Your task to perform on an android device: add a label to a message in the gmail app Image 0: 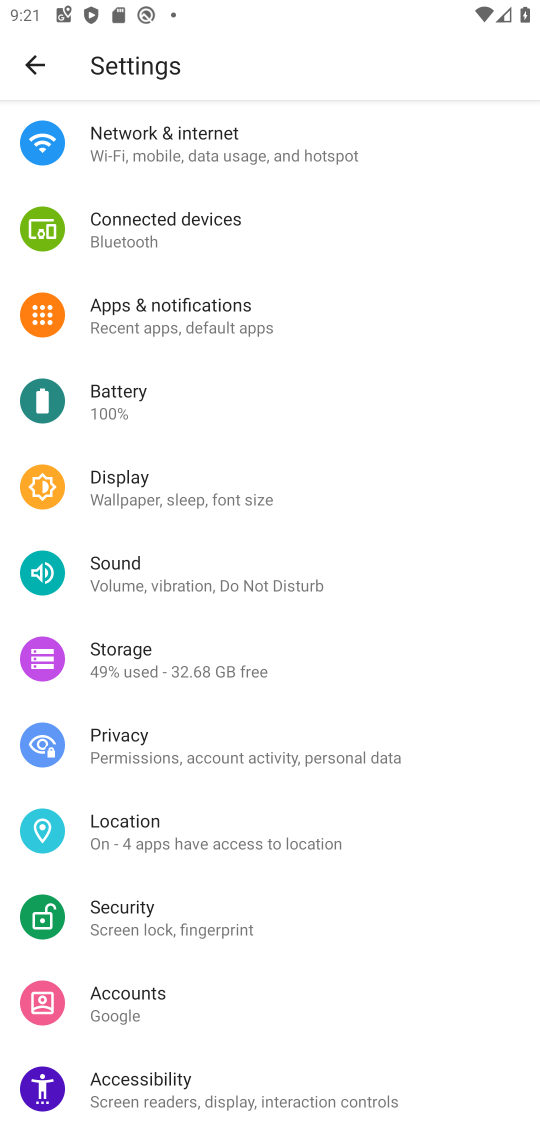
Step 0: press home button
Your task to perform on an android device: add a label to a message in the gmail app Image 1: 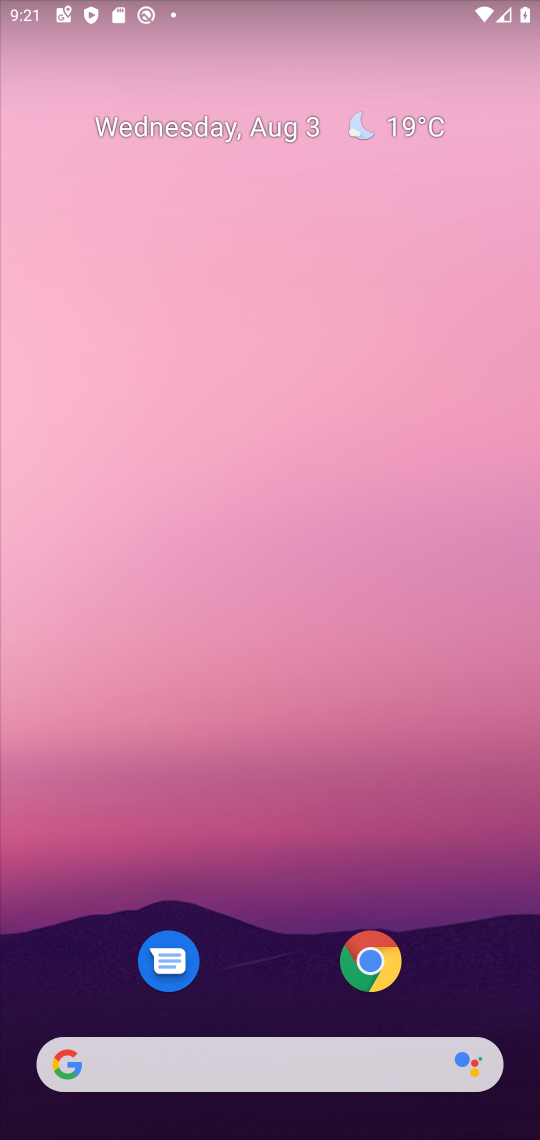
Step 1: drag from (304, 996) to (236, 0)
Your task to perform on an android device: add a label to a message in the gmail app Image 2: 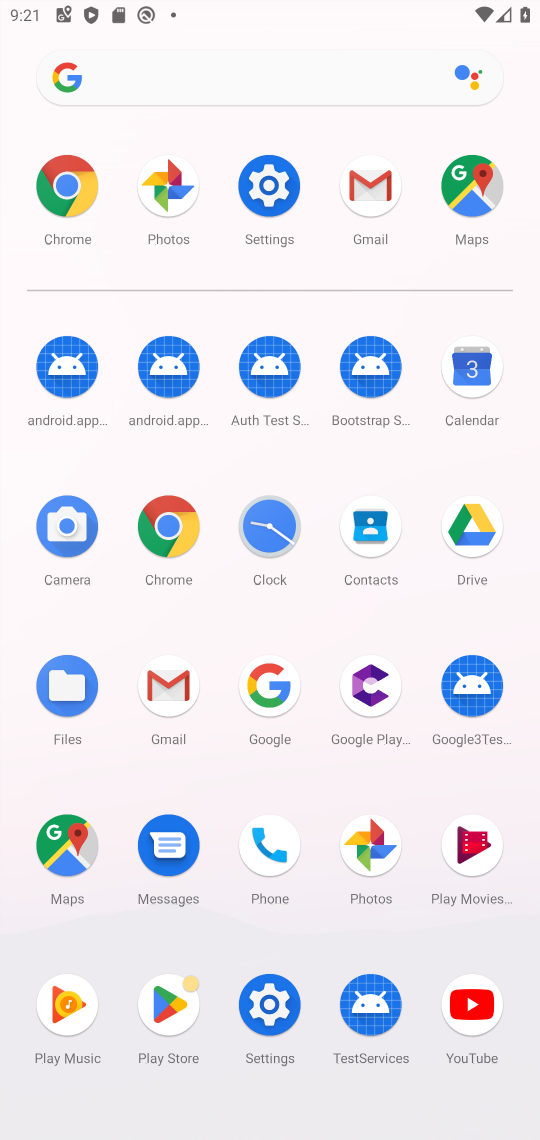
Step 2: click (176, 686)
Your task to perform on an android device: add a label to a message in the gmail app Image 3: 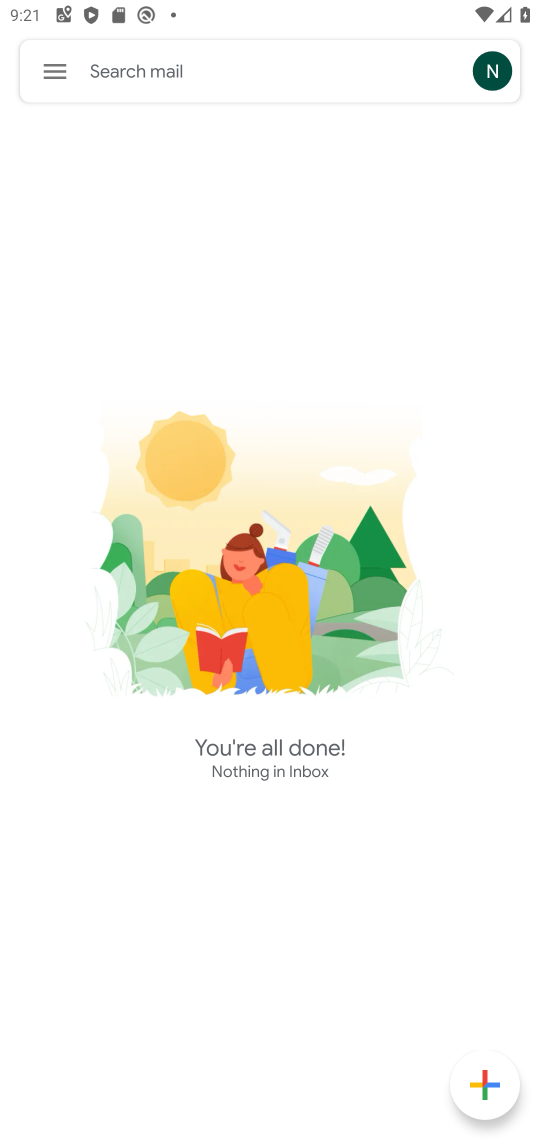
Step 3: task complete